Your task to perform on an android device: check the backup settings in the google photos Image 0: 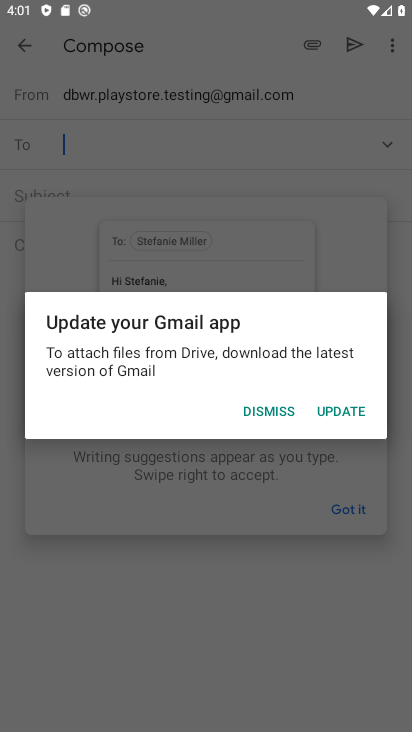
Step 0: press home button
Your task to perform on an android device: check the backup settings in the google photos Image 1: 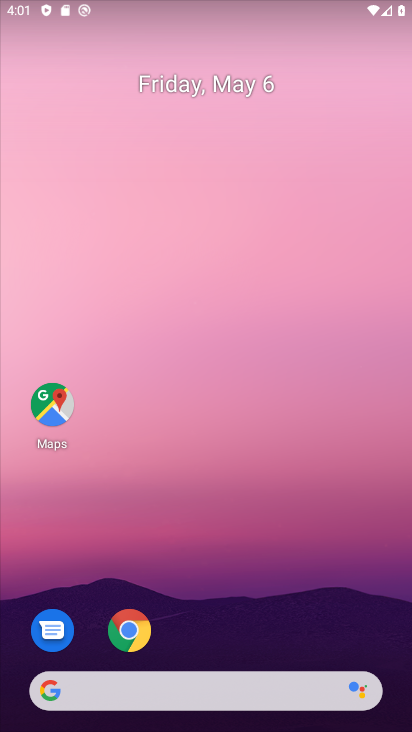
Step 1: drag from (281, 529) to (408, 98)
Your task to perform on an android device: check the backup settings in the google photos Image 2: 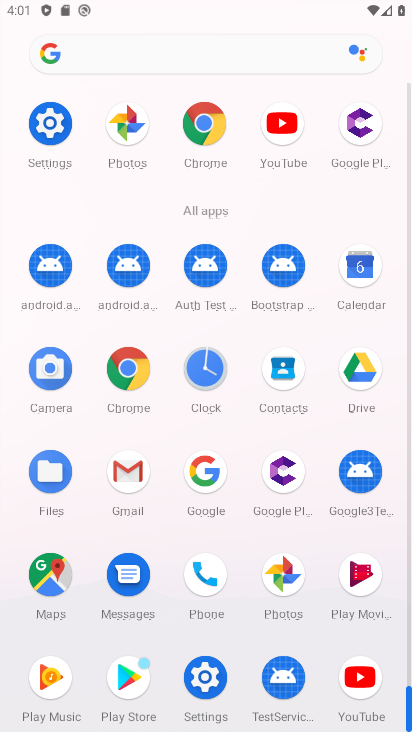
Step 2: click (284, 588)
Your task to perform on an android device: check the backup settings in the google photos Image 3: 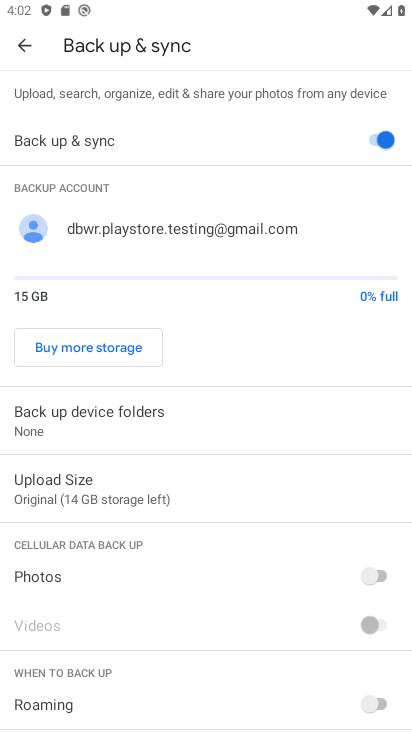
Step 3: task complete